Your task to perform on an android device: turn on javascript in the chrome app Image 0: 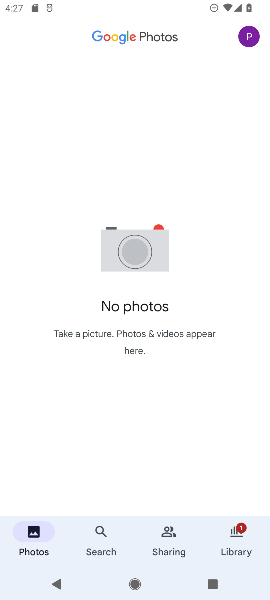
Step 0: press back button
Your task to perform on an android device: turn on javascript in the chrome app Image 1: 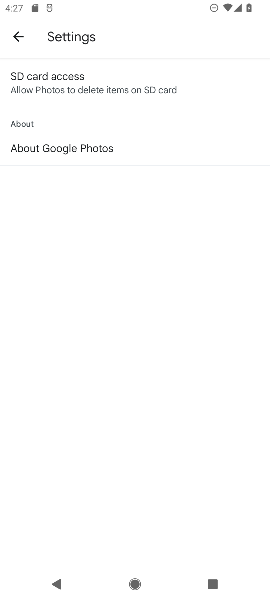
Step 1: press home button
Your task to perform on an android device: turn on javascript in the chrome app Image 2: 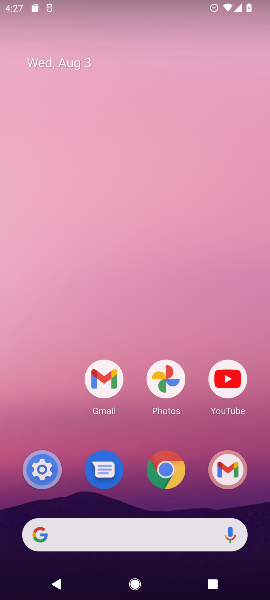
Step 2: drag from (265, 510) to (104, 16)
Your task to perform on an android device: turn on javascript in the chrome app Image 3: 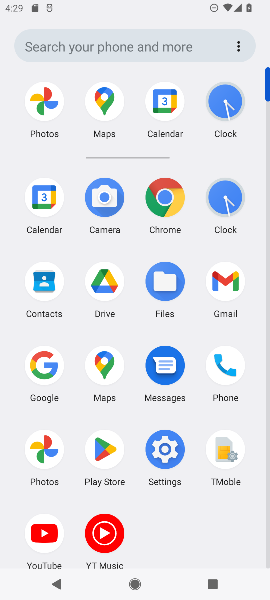
Step 3: click (171, 197)
Your task to perform on an android device: turn on javascript in the chrome app Image 4: 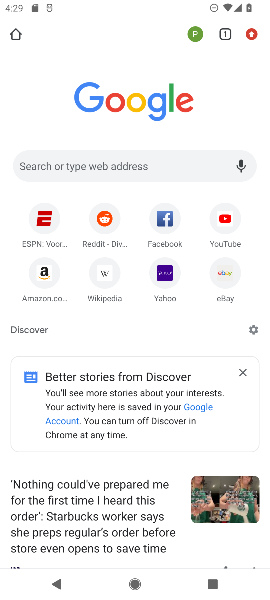
Step 4: click (251, 32)
Your task to perform on an android device: turn on javascript in the chrome app Image 5: 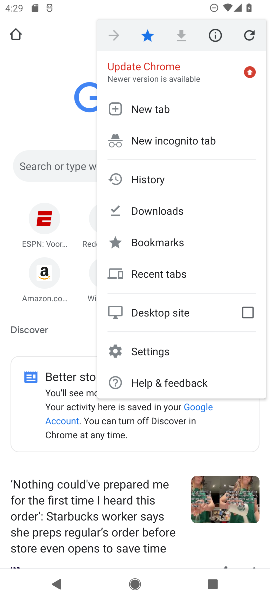
Step 5: click (157, 348)
Your task to perform on an android device: turn on javascript in the chrome app Image 6: 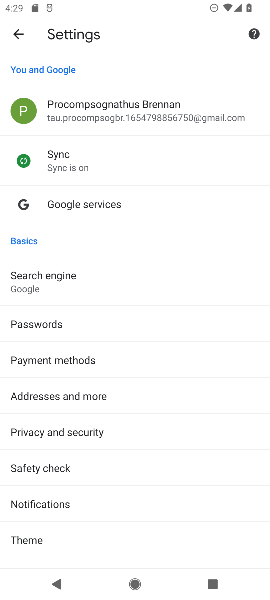
Step 6: drag from (137, 484) to (31, 167)
Your task to perform on an android device: turn on javascript in the chrome app Image 7: 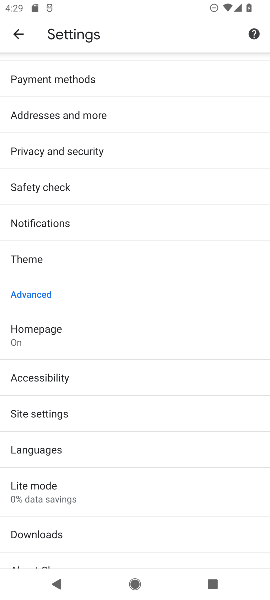
Step 7: click (45, 411)
Your task to perform on an android device: turn on javascript in the chrome app Image 8: 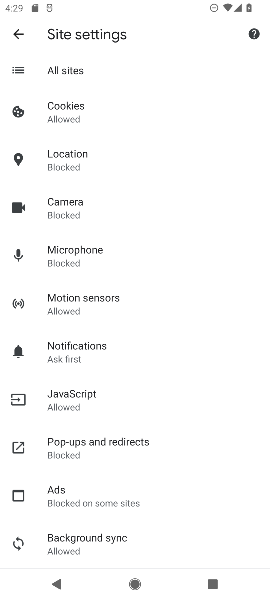
Step 8: click (90, 406)
Your task to perform on an android device: turn on javascript in the chrome app Image 9: 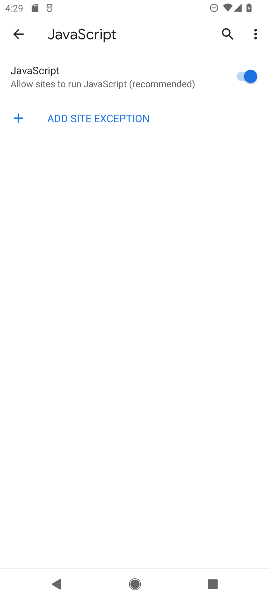
Step 9: task complete